Your task to perform on an android device: Search for seafood restaurants on Google Maps Image 0: 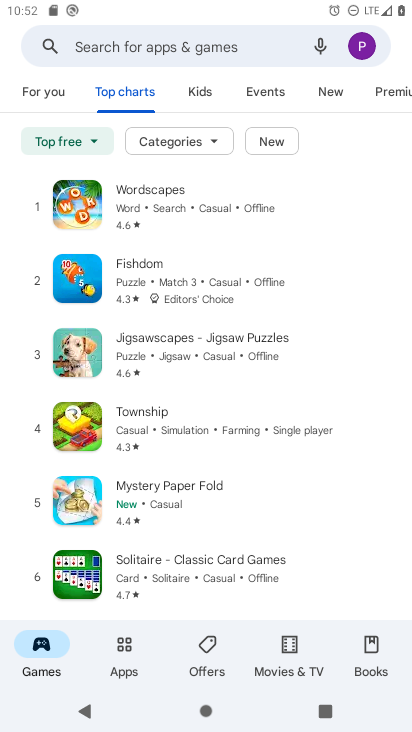
Step 0: press home button
Your task to perform on an android device: Search for seafood restaurants on Google Maps Image 1: 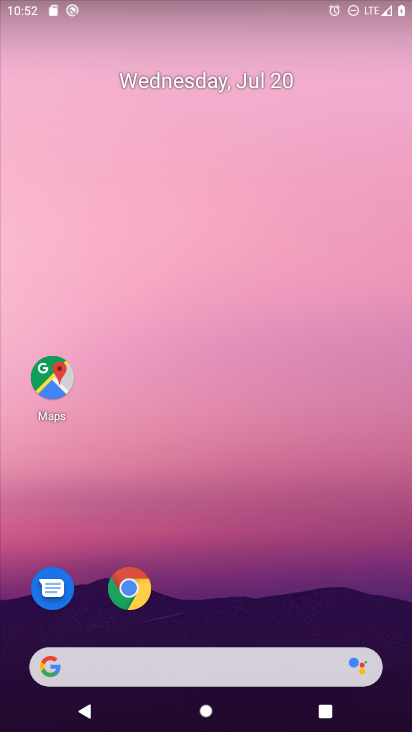
Step 1: click (63, 387)
Your task to perform on an android device: Search for seafood restaurants on Google Maps Image 2: 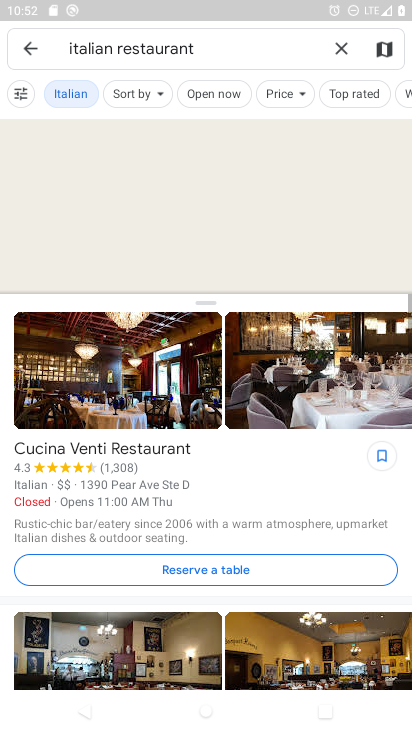
Step 2: click (351, 52)
Your task to perform on an android device: Search for seafood restaurants on Google Maps Image 3: 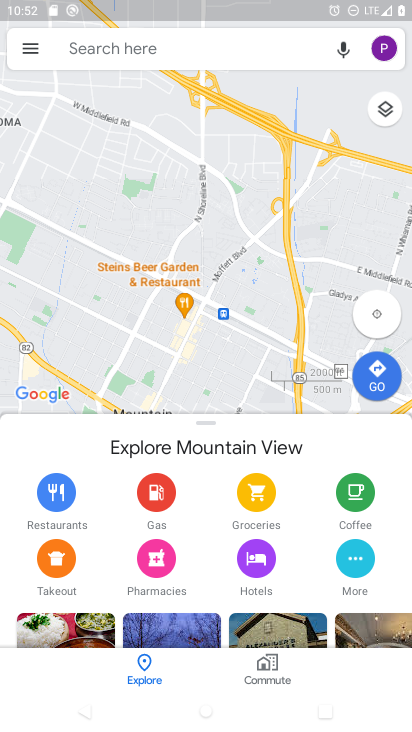
Step 3: click (231, 39)
Your task to perform on an android device: Search for seafood restaurants on Google Maps Image 4: 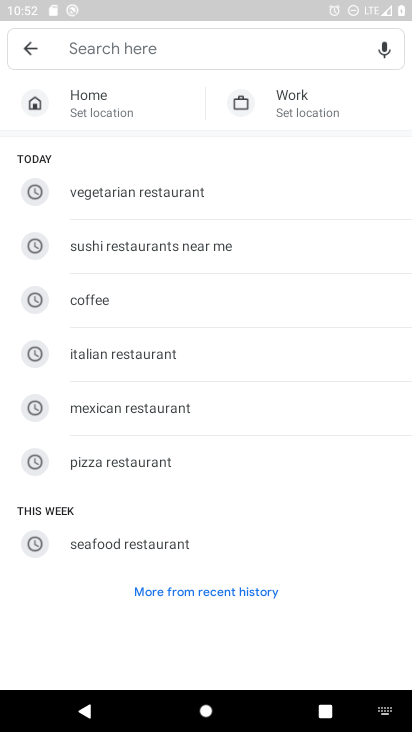
Step 4: click (134, 543)
Your task to perform on an android device: Search for seafood restaurants on Google Maps Image 5: 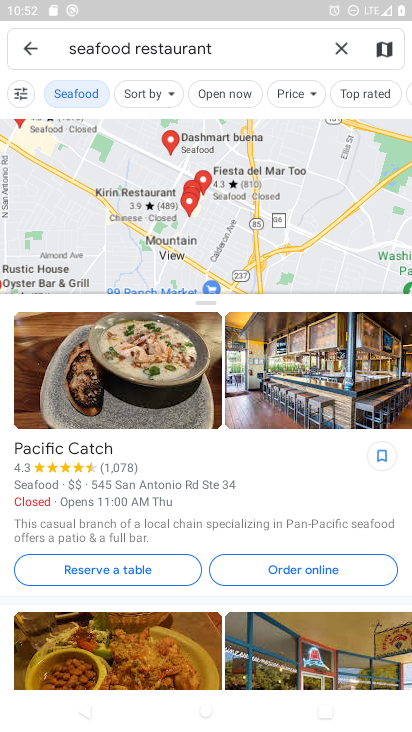
Step 5: task complete